Your task to perform on an android device: see creations saved in the google photos Image 0: 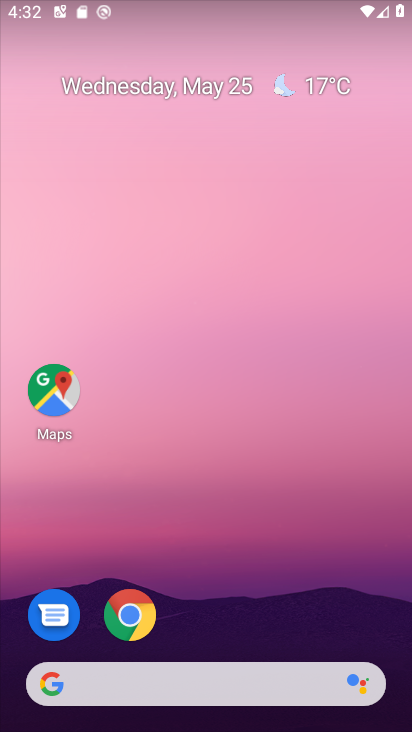
Step 0: drag from (295, 255) to (243, 79)
Your task to perform on an android device: see creations saved in the google photos Image 1: 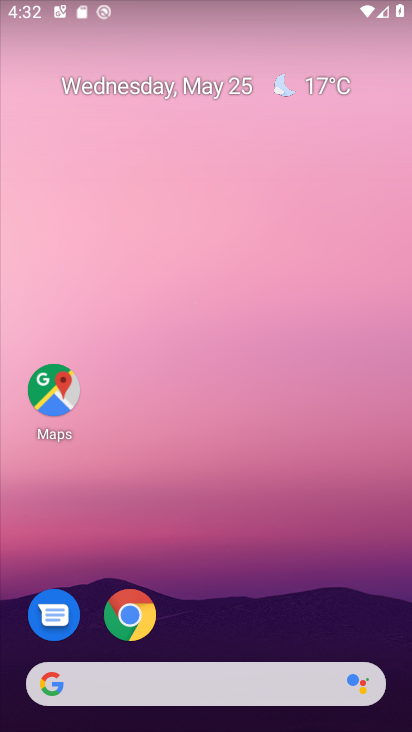
Step 1: drag from (222, 337) to (173, 13)
Your task to perform on an android device: see creations saved in the google photos Image 2: 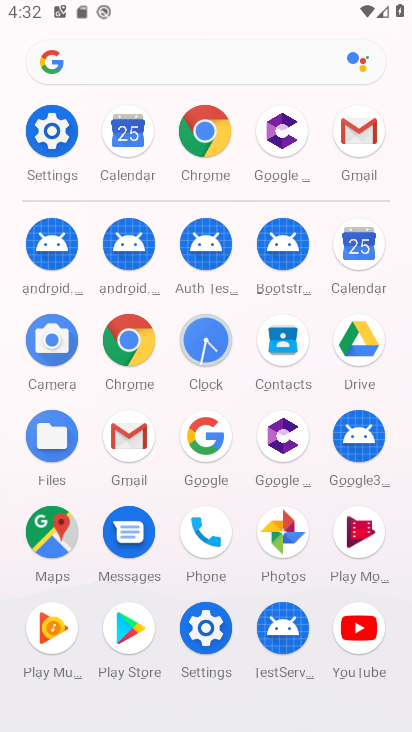
Step 2: click (282, 527)
Your task to perform on an android device: see creations saved in the google photos Image 3: 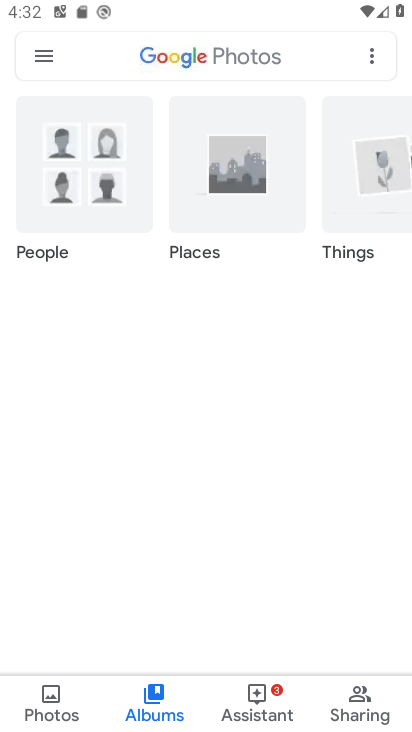
Step 3: click (47, 709)
Your task to perform on an android device: see creations saved in the google photos Image 4: 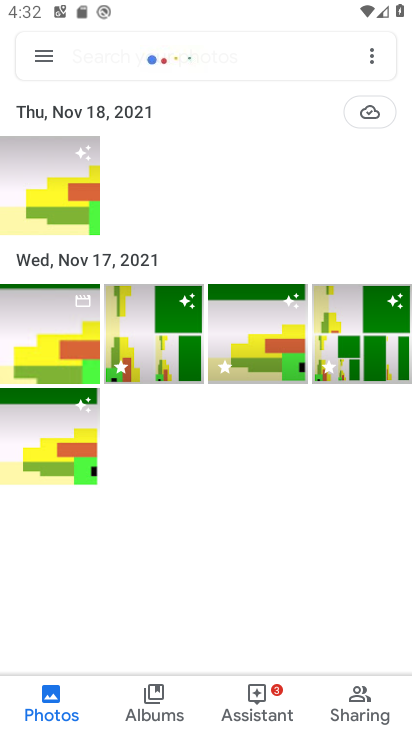
Step 4: click (186, 53)
Your task to perform on an android device: see creations saved in the google photos Image 5: 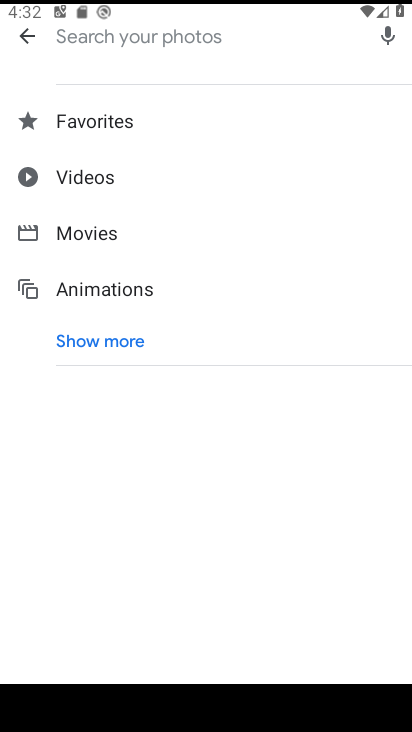
Step 5: type "creations"
Your task to perform on an android device: see creations saved in the google photos Image 6: 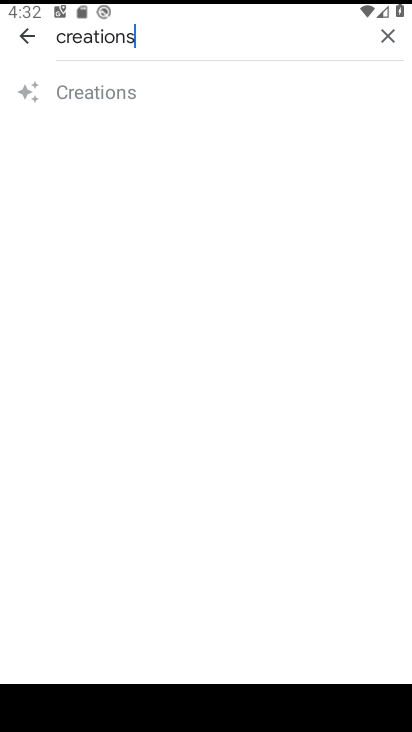
Step 6: click (183, 99)
Your task to perform on an android device: see creations saved in the google photos Image 7: 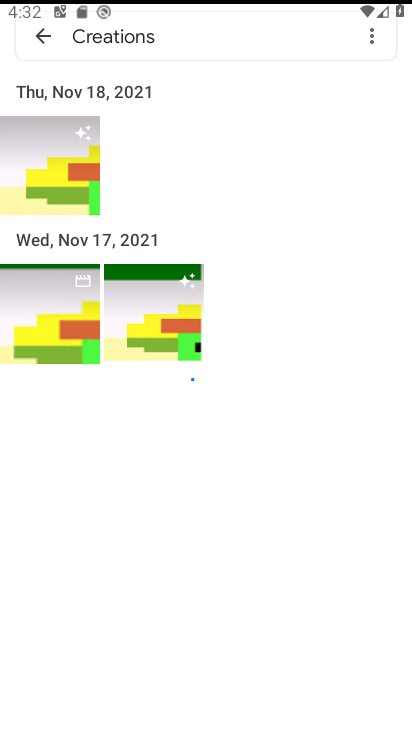
Step 7: task complete